Your task to perform on an android device: toggle improve location accuracy Image 0: 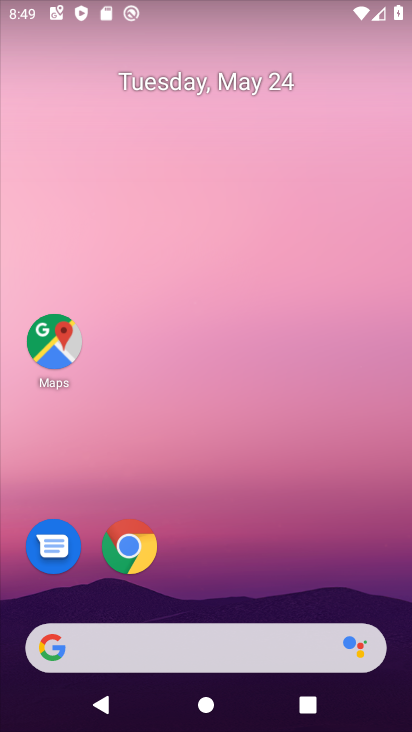
Step 0: drag from (181, 600) to (256, 194)
Your task to perform on an android device: toggle improve location accuracy Image 1: 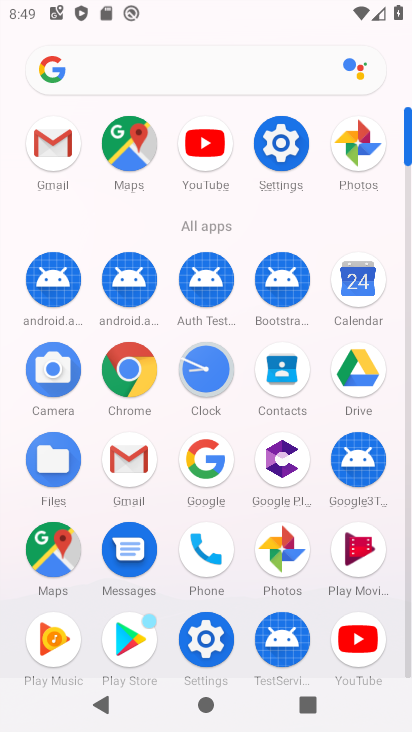
Step 1: click (285, 151)
Your task to perform on an android device: toggle improve location accuracy Image 2: 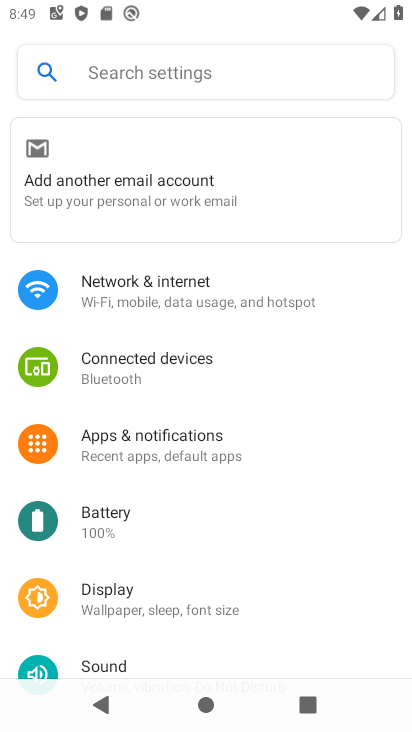
Step 2: drag from (215, 600) to (225, 402)
Your task to perform on an android device: toggle improve location accuracy Image 3: 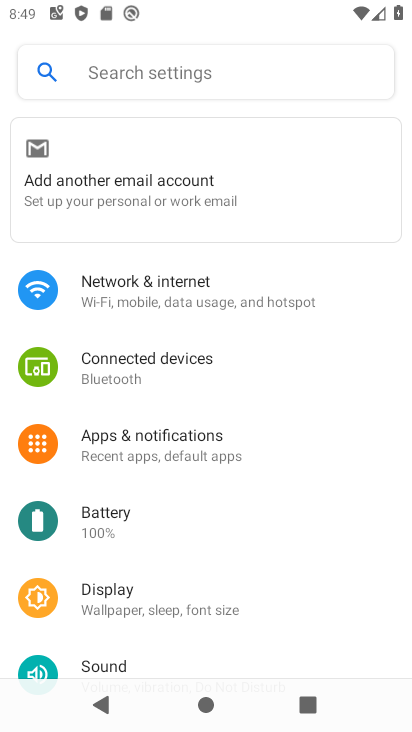
Step 3: drag from (189, 643) to (202, 337)
Your task to perform on an android device: toggle improve location accuracy Image 4: 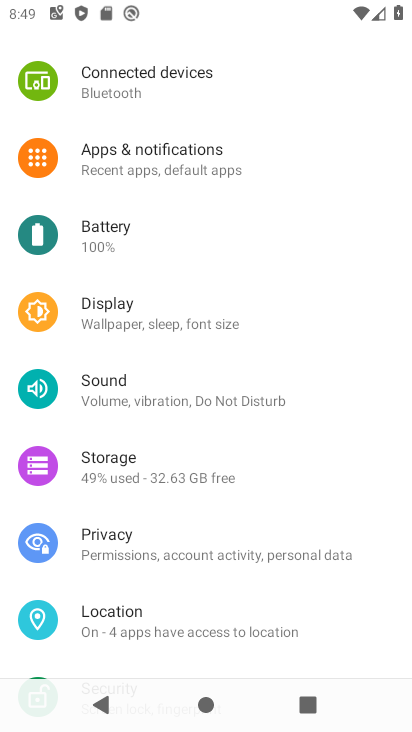
Step 4: click (125, 617)
Your task to perform on an android device: toggle improve location accuracy Image 5: 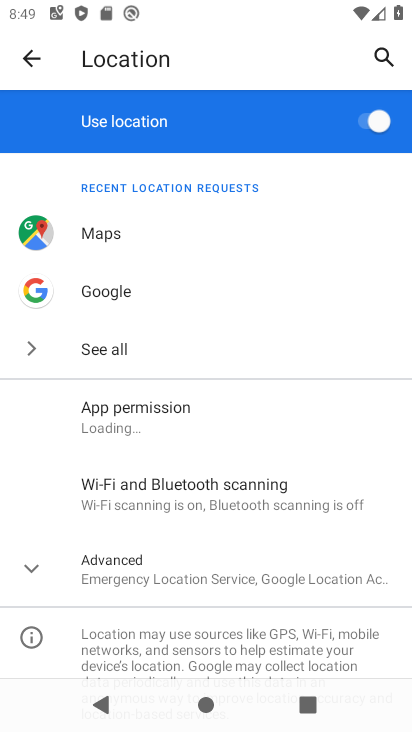
Step 5: click (109, 557)
Your task to perform on an android device: toggle improve location accuracy Image 6: 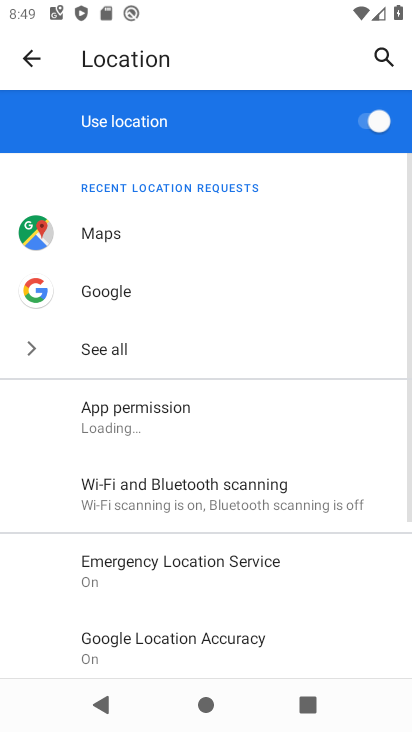
Step 6: drag from (138, 662) to (185, 239)
Your task to perform on an android device: toggle improve location accuracy Image 7: 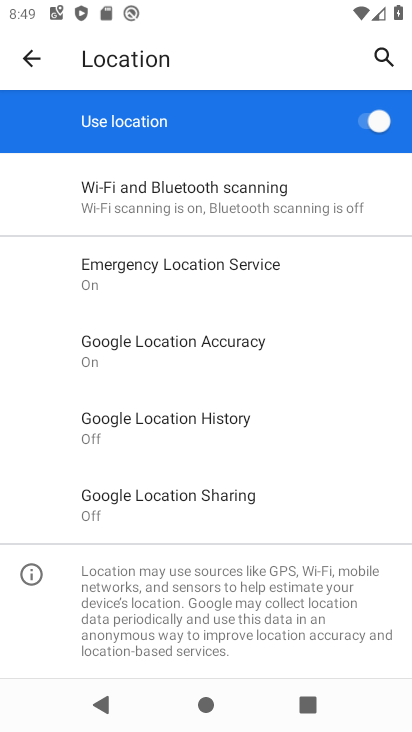
Step 7: click (180, 331)
Your task to perform on an android device: toggle improve location accuracy Image 8: 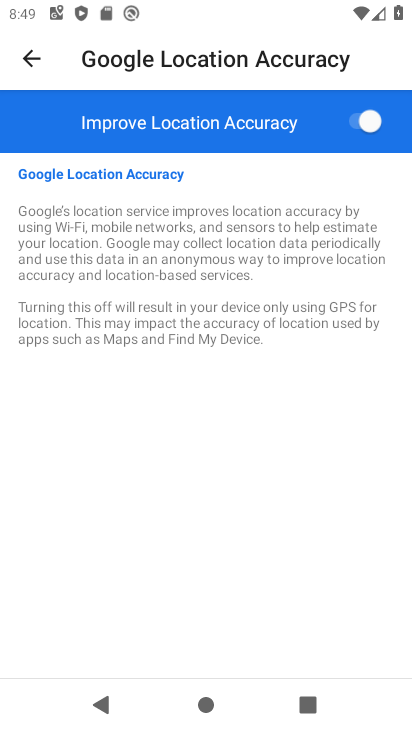
Step 8: click (360, 118)
Your task to perform on an android device: toggle improve location accuracy Image 9: 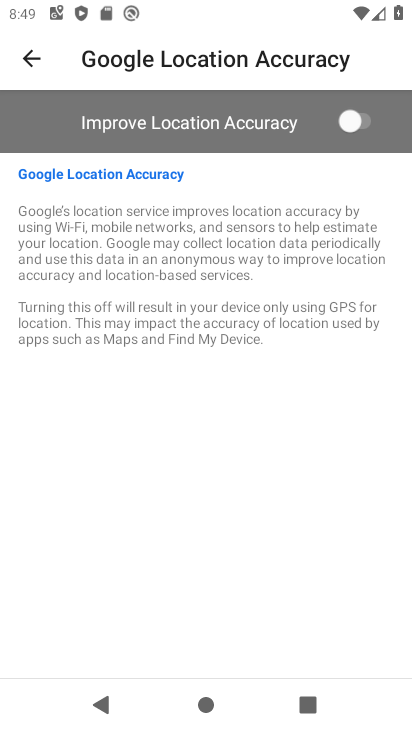
Step 9: task complete